Your task to perform on an android device: What's the weather today? Image 0: 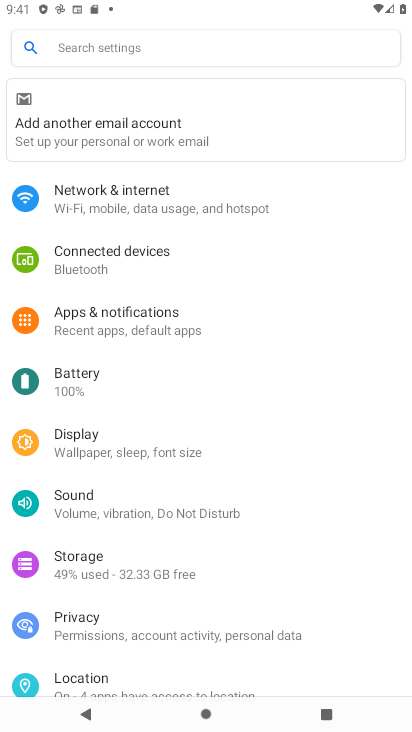
Step 0: press home button
Your task to perform on an android device: What's the weather today? Image 1: 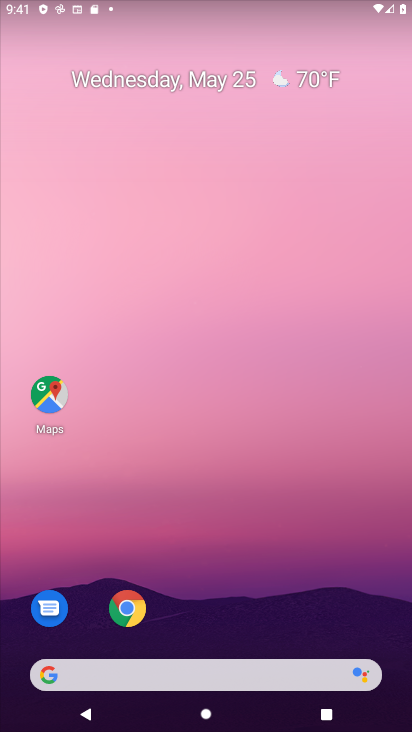
Step 1: click (319, 76)
Your task to perform on an android device: What's the weather today? Image 2: 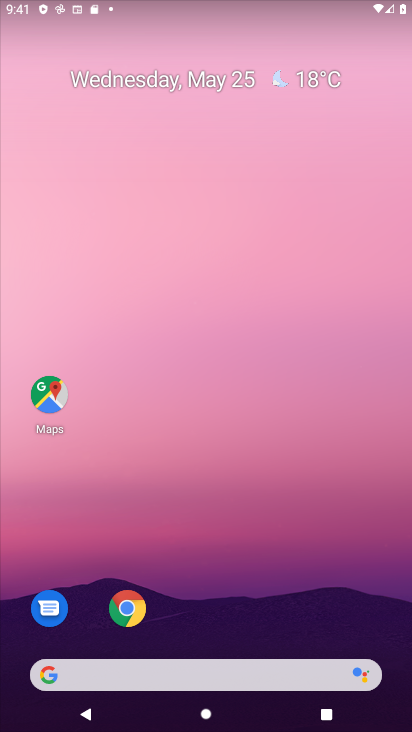
Step 2: click (319, 76)
Your task to perform on an android device: What's the weather today? Image 3: 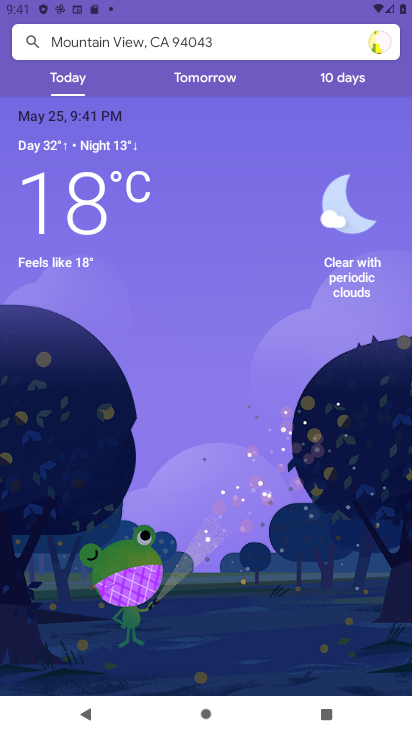
Step 3: task complete